Your task to perform on an android device: check android version Image 0: 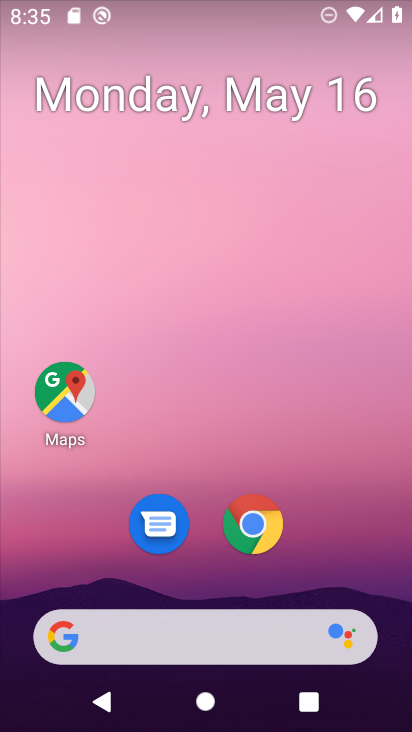
Step 0: drag from (316, 535) to (310, 25)
Your task to perform on an android device: check android version Image 1: 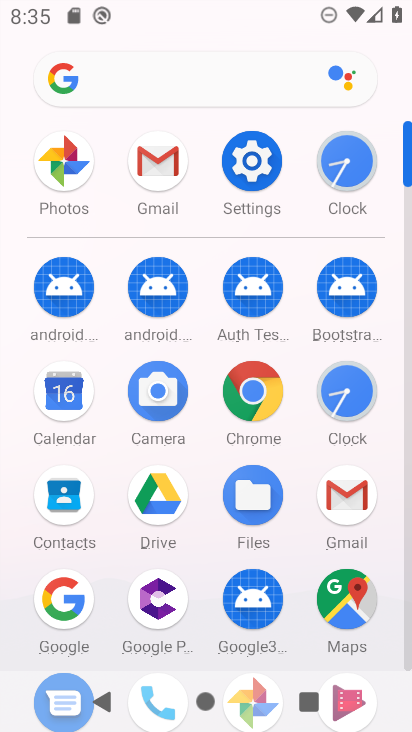
Step 1: click (251, 153)
Your task to perform on an android device: check android version Image 2: 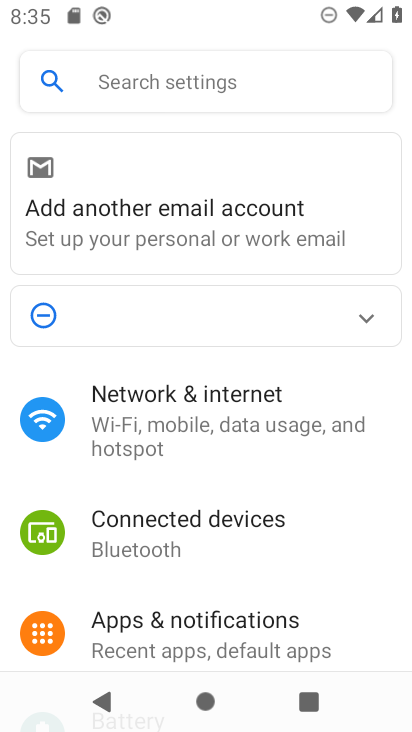
Step 2: drag from (199, 558) to (211, 240)
Your task to perform on an android device: check android version Image 3: 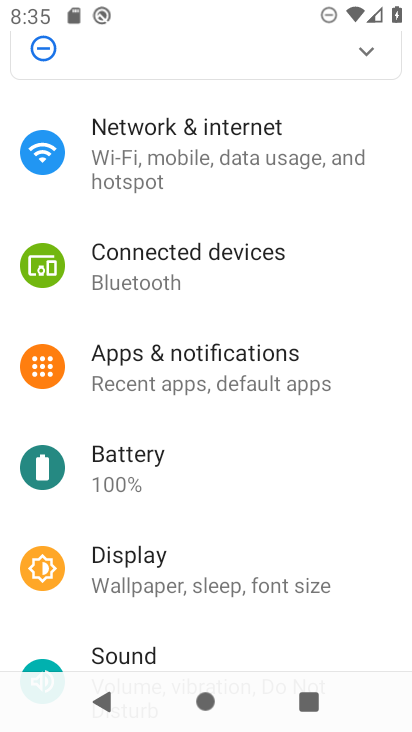
Step 3: drag from (184, 521) to (217, 126)
Your task to perform on an android device: check android version Image 4: 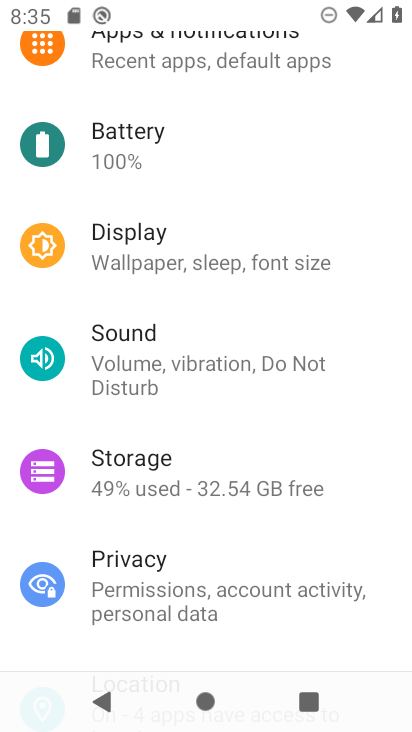
Step 4: drag from (195, 526) to (210, 154)
Your task to perform on an android device: check android version Image 5: 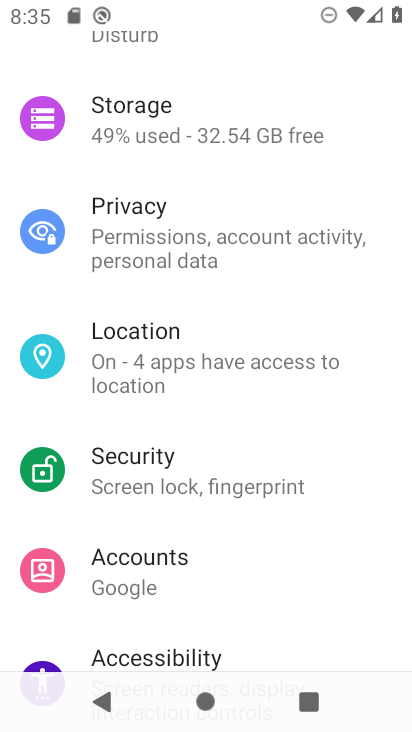
Step 5: drag from (208, 526) to (241, 185)
Your task to perform on an android device: check android version Image 6: 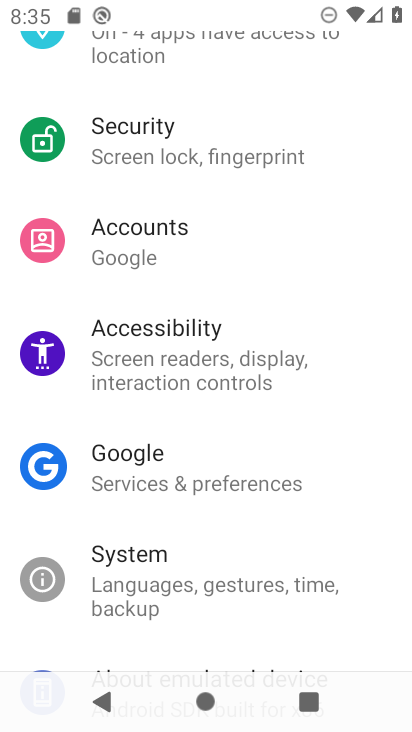
Step 6: drag from (216, 545) to (253, 234)
Your task to perform on an android device: check android version Image 7: 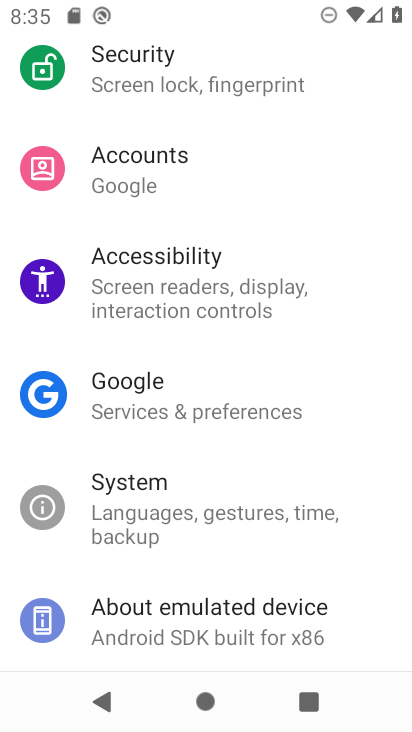
Step 7: click (191, 614)
Your task to perform on an android device: check android version Image 8: 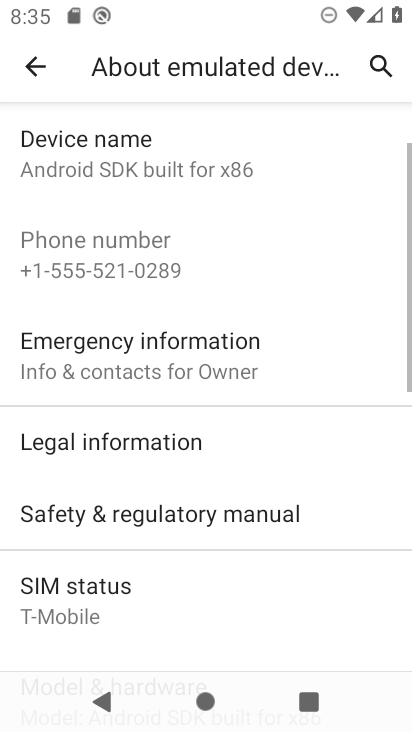
Step 8: drag from (197, 570) to (239, 182)
Your task to perform on an android device: check android version Image 9: 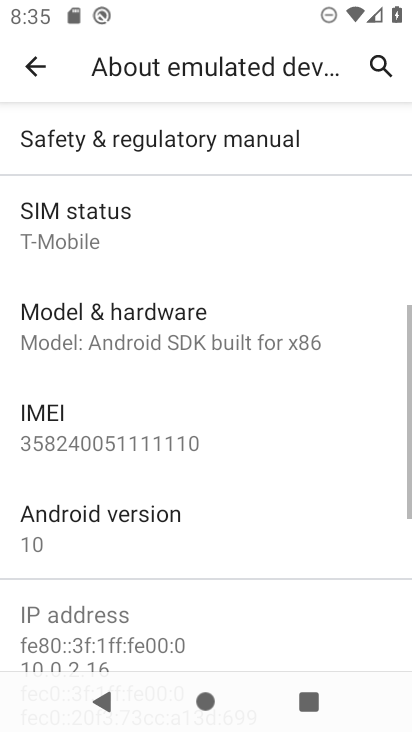
Step 9: click (105, 545)
Your task to perform on an android device: check android version Image 10: 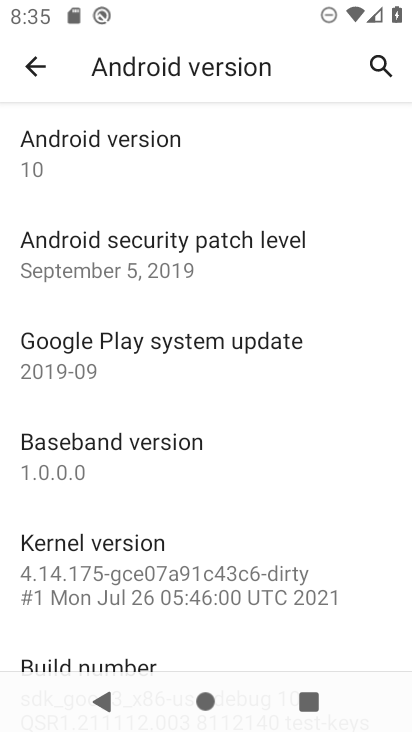
Step 10: task complete